Your task to perform on an android device: turn on priority inbox in the gmail app Image 0: 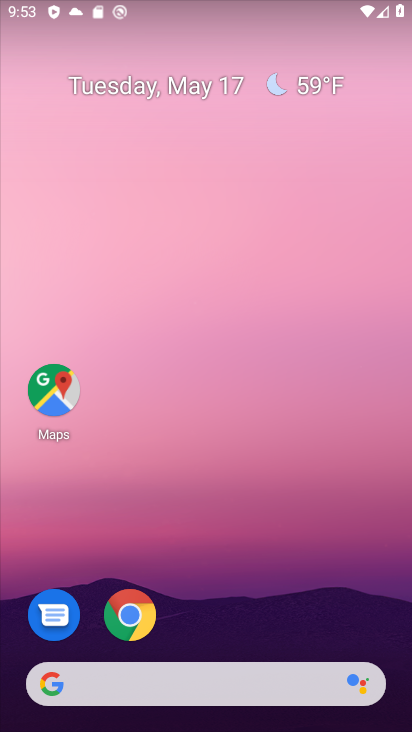
Step 0: drag from (259, 600) to (219, 201)
Your task to perform on an android device: turn on priority inbox in the gmail app Image 1: 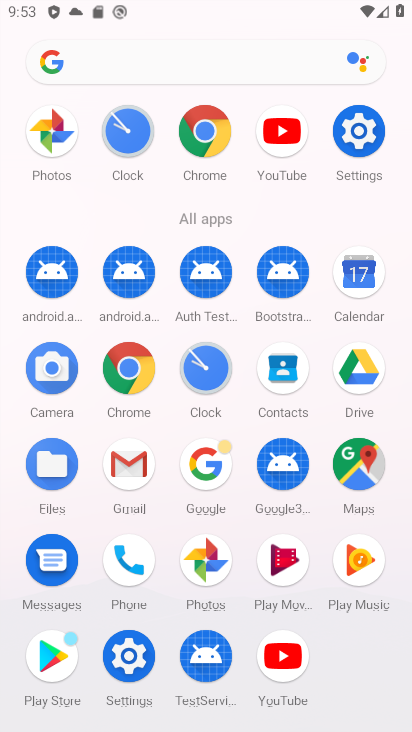
Step 1: click (130, 477)
Your task to perform on an android device: turn on priority inbox in the gmail app Image 2: 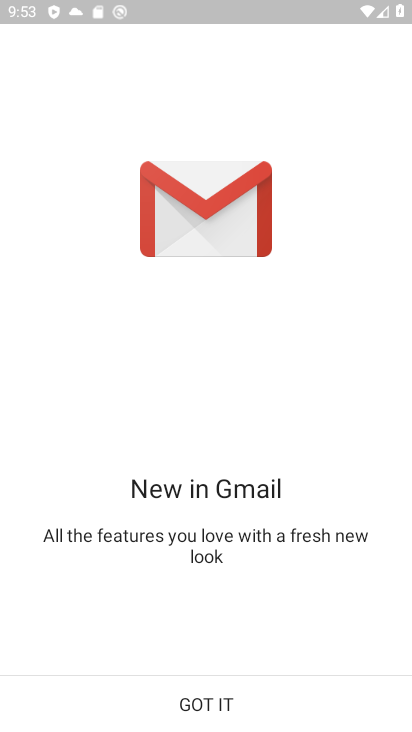
Step 2: click (198, 698)
Your task to perform on an android device: turn on priority inbox in the gmail app Image 3: 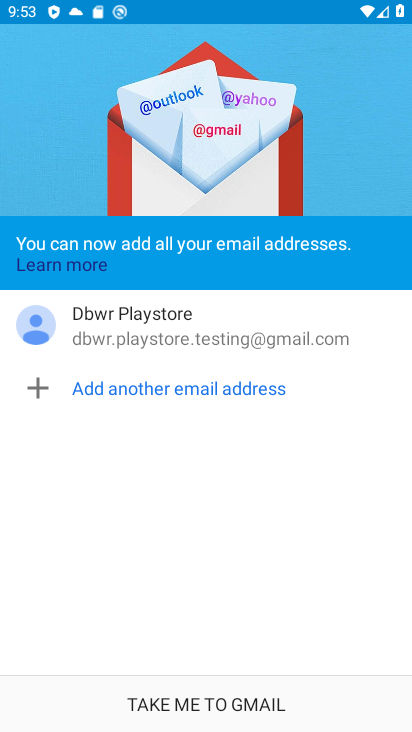
Step 3: click (225, 700)
Your task to perform on an android device: turn on priority inbox in the gmail app Image 4: 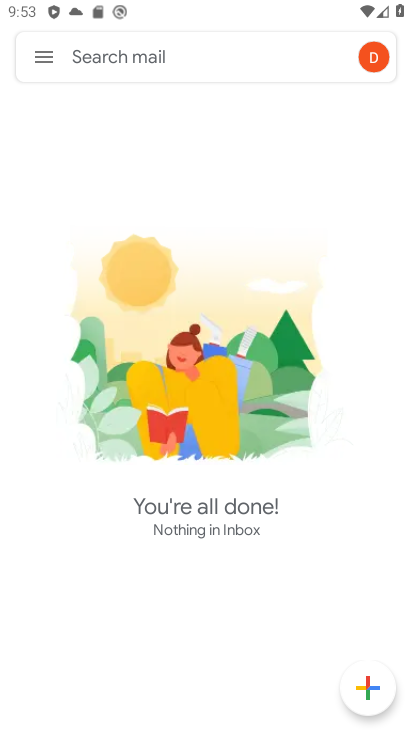
Step 4: click (48, 60)
Your task to perform on an android device: turn on priority inbox in the gmail app Image 5: 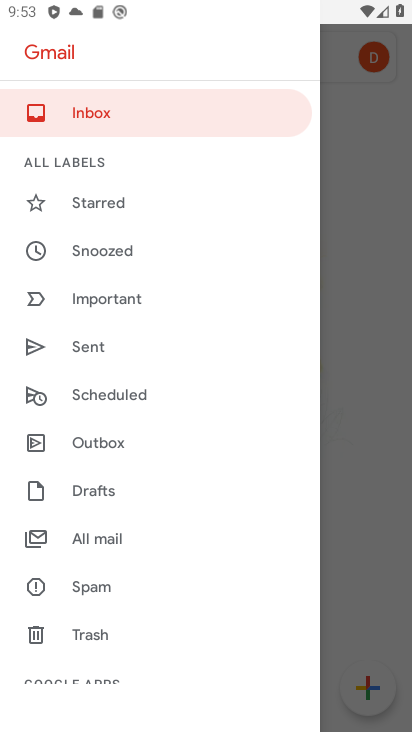
Step 5: drag from (130, 626) to (165, 303)
Your task to perform on an android device: turn on priority inbox in the gmail app Image 6: 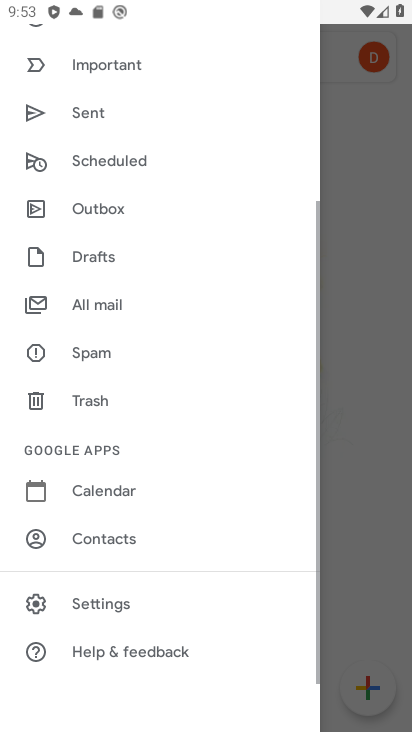
Step 6: click (108, 600)
Your task to perform on an android device: turn on priority inbox in the gmail app Image 7: 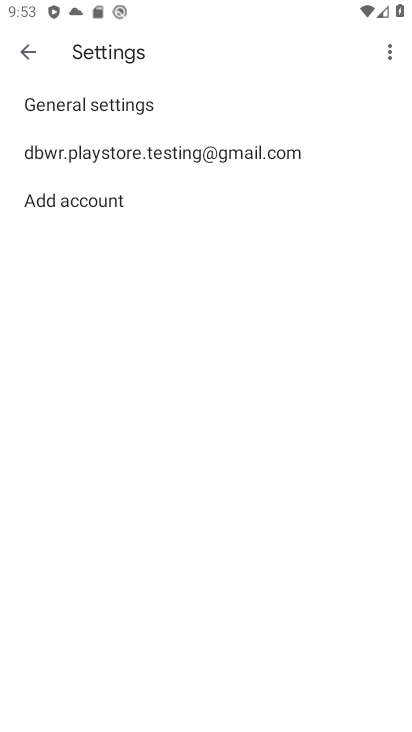
Step 7: click (150, 167)
Your task to perform on an android device: turn on priority inbox in the gmail app Image 8: 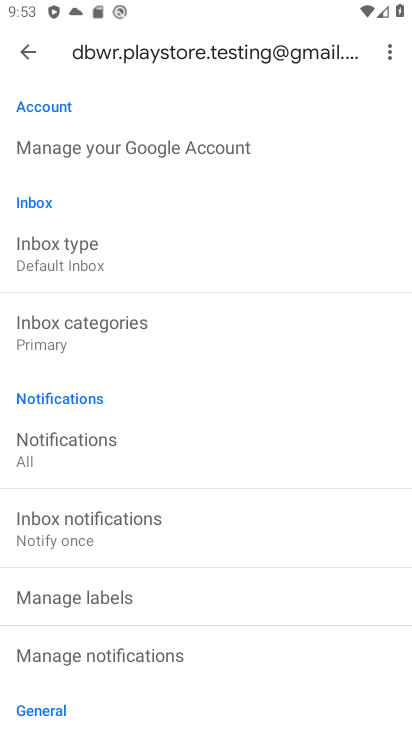
Step 8: click (74, 268)
Your task to perform on an android device: turn on priority inbox in the gmail app Image 9: 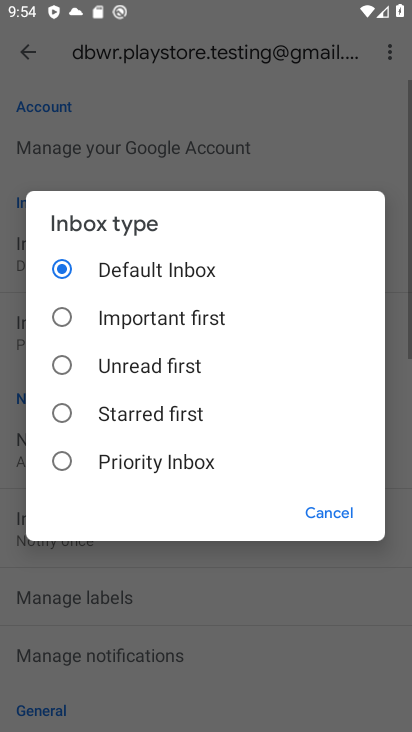
Step 9: click (55, 462)
Your task to perform on an android device: turn on priority inbox in the gmail app Image 10: 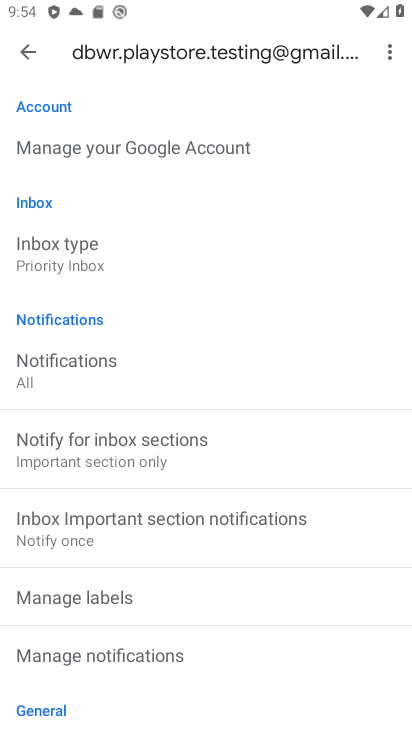
Step 10: task complete